Your task to perform on an android device: Is it going to rain today? Image 0: 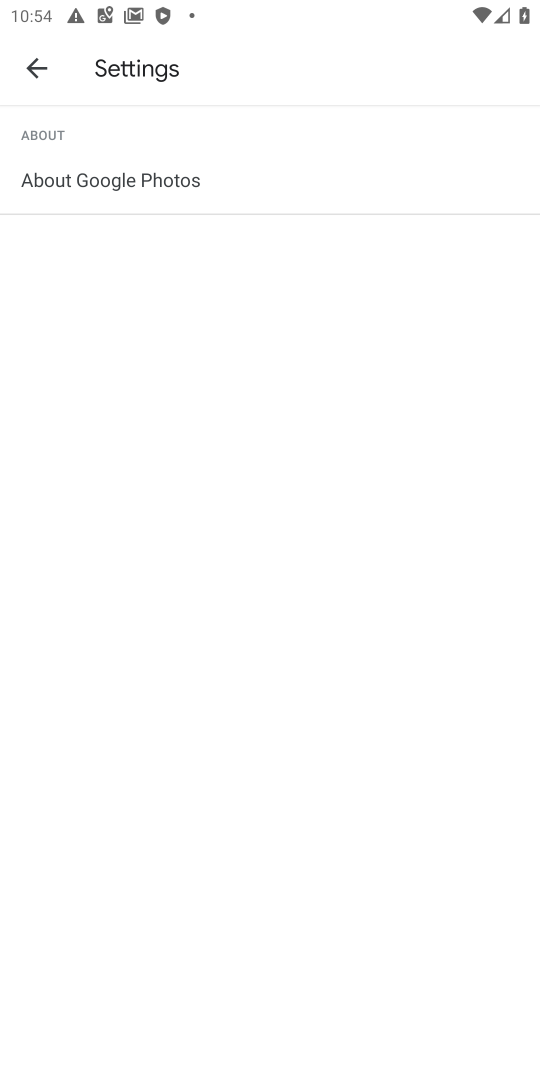
Step 0: press home button
Your task to perform on an android device: Is it going to rain today? Image 1: 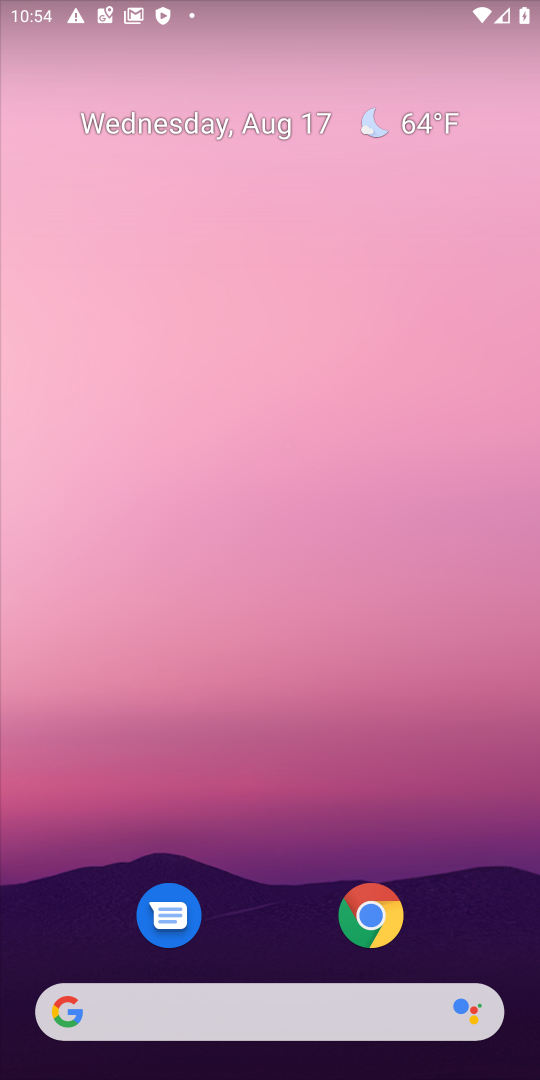
Step 1: click (75, 1016)
Your task to perform on an android device: Is it going to rain today? Image 2: 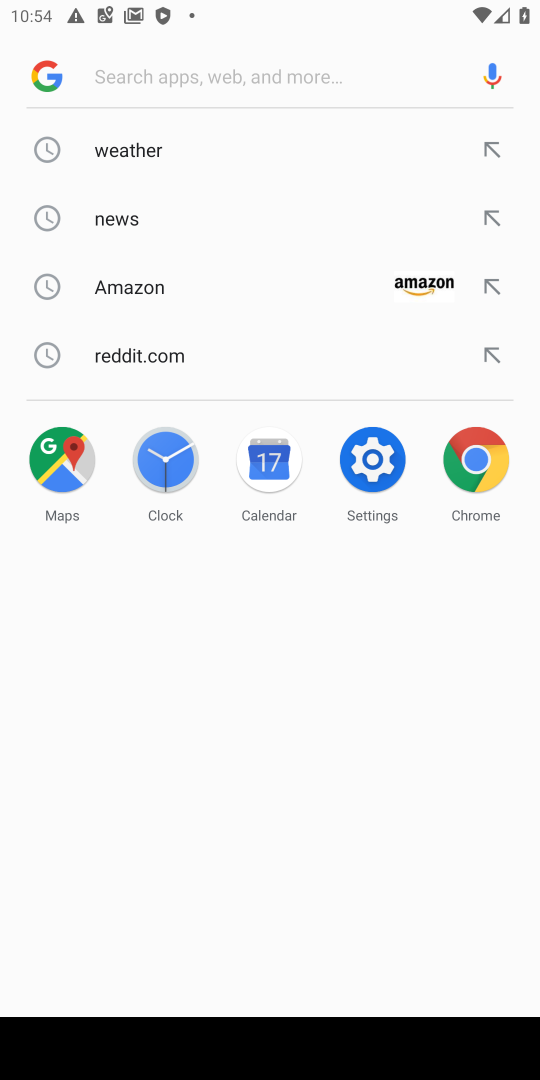
Step 2: click (102, 155)
Your task to perform on an android device: Is it going to rain today? Image 3: 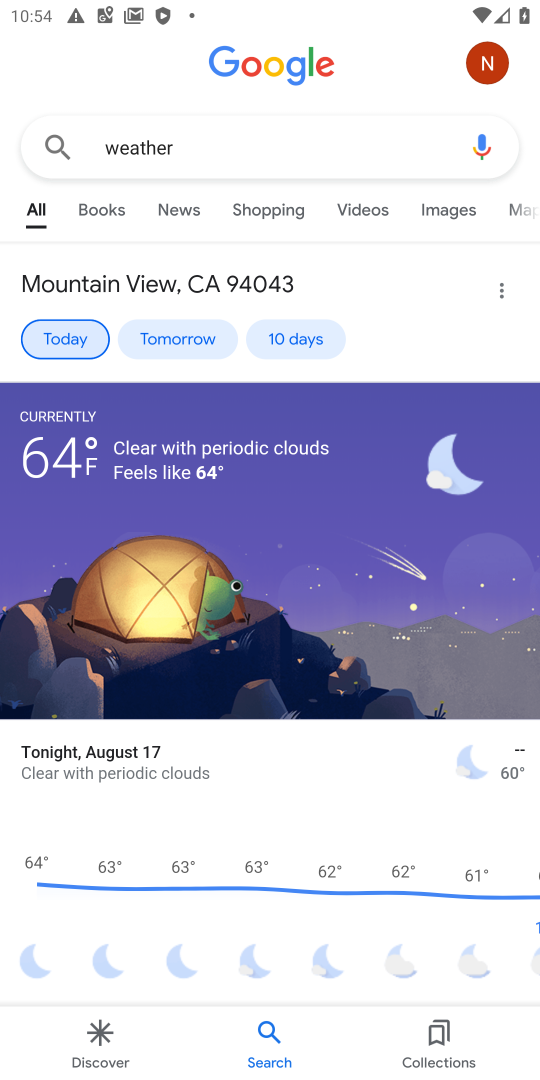
Step 3: task complete